Your task to perform on an android device: Open Google Chrome and click the shortcut for Amazon.com Image 0: 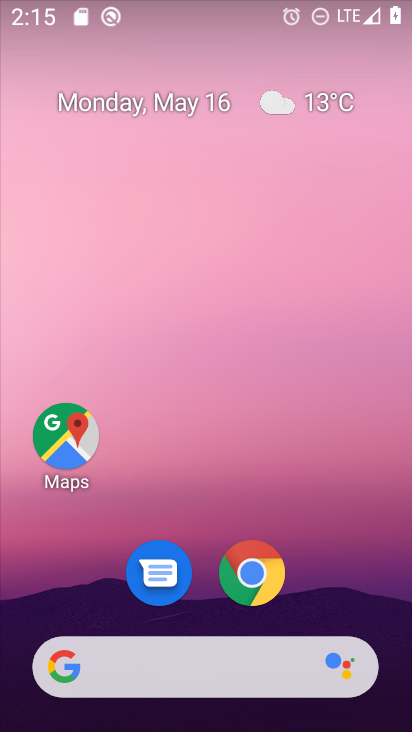
Step 0: click (261, 600)
Your task to perform on an android device: Open Google Chrome and click the shortcut for Amazon.com Image 1: 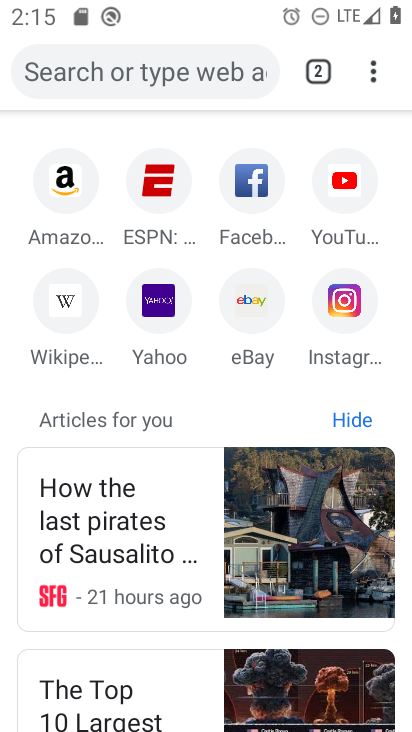
Step 1: click (50, 214)
Your task to perform on an android device: Open Google Chrome and click the shortcut for Amazon.com Image 2: 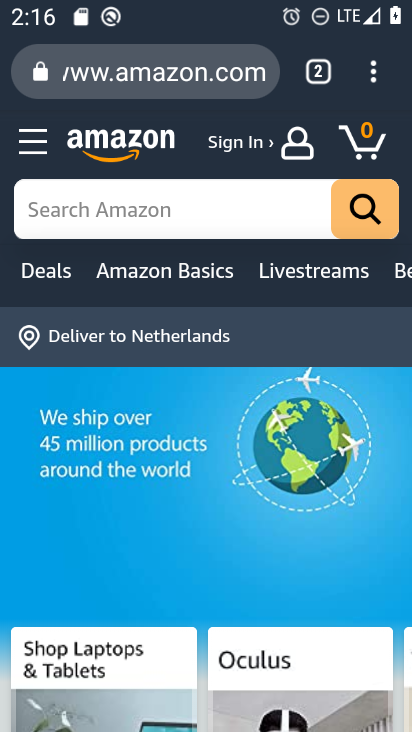
Step 2: click (360, 164)
Your task to perform on an android device: Open Google Chrome and click the shortcut for Amazon.com Image 3: 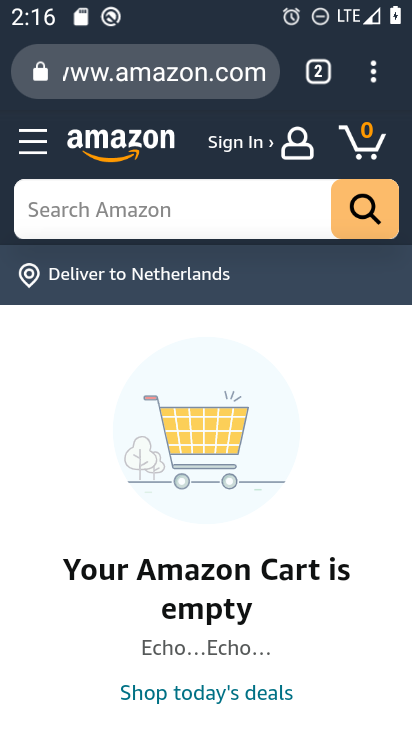
Step 3: task complete